Your task to perform on an android device: Open the map Image 0: 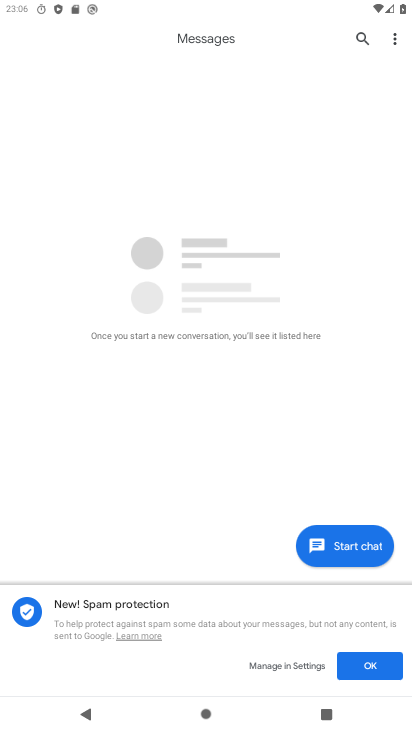
Step 0: press home button
Your task to perform on an android device: Open the map Image 1: 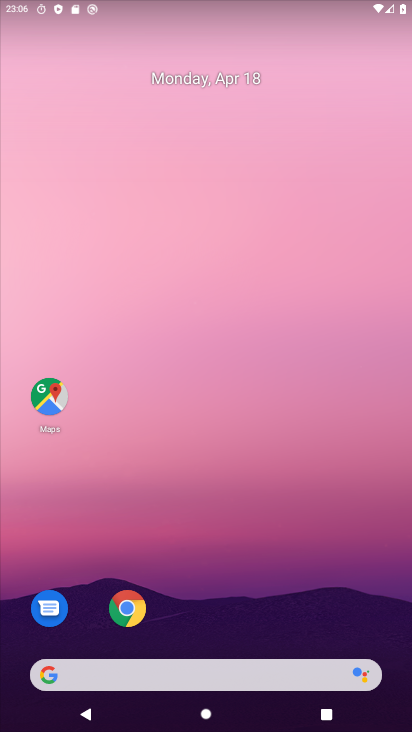
Step 1: click (48, 396)
Your task to perform on an android device: Open the map Image 2: 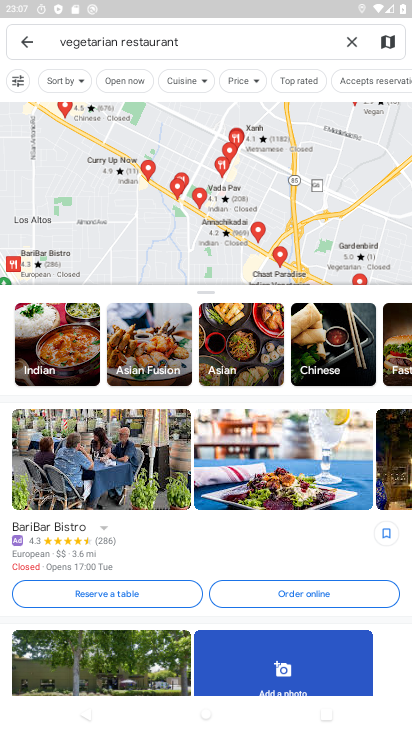
Step 2: task complete